Your task to perform on an android device: Open calendar and show me the fourth week of next month Image 0: 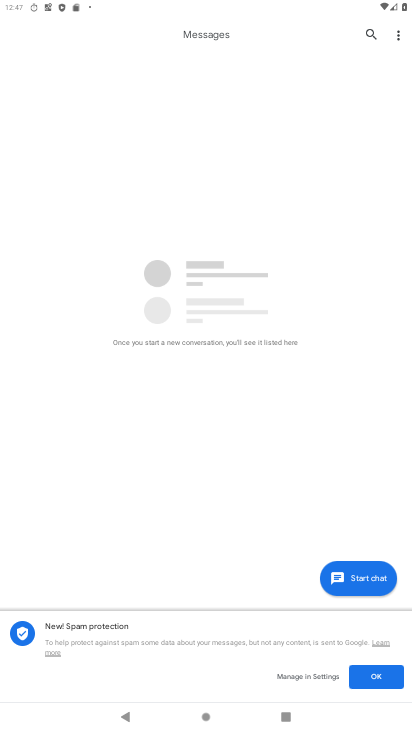
Step 0: press home button
Your task to perform on an android device: Open calendar and show me the fourth week of next month Image 1: 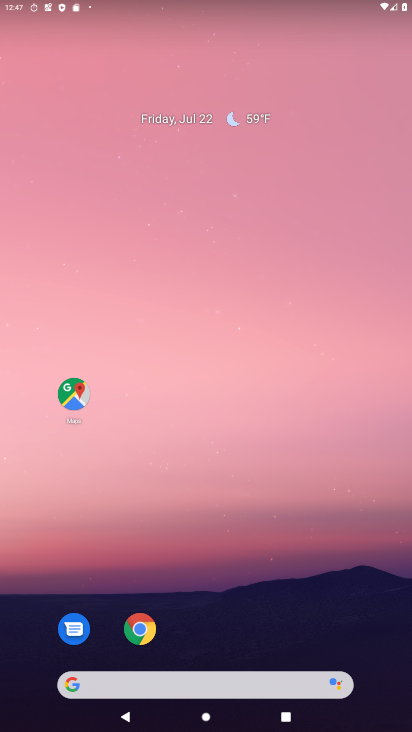
Step 1: drag from (198, 692) to (294, 95)
Your task to perform on an android device: Open calendar and show me the fourth week of next month Image 2: 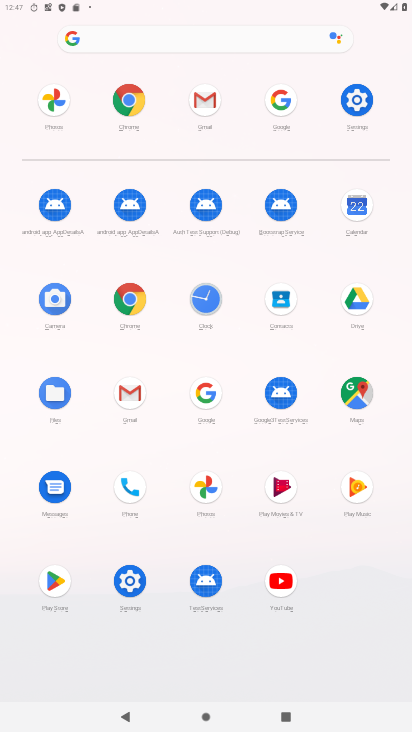
Step 2: click (355, 205)
Your task to perform on an android device: Open calendar and show me the fourth week of next month Image 3: 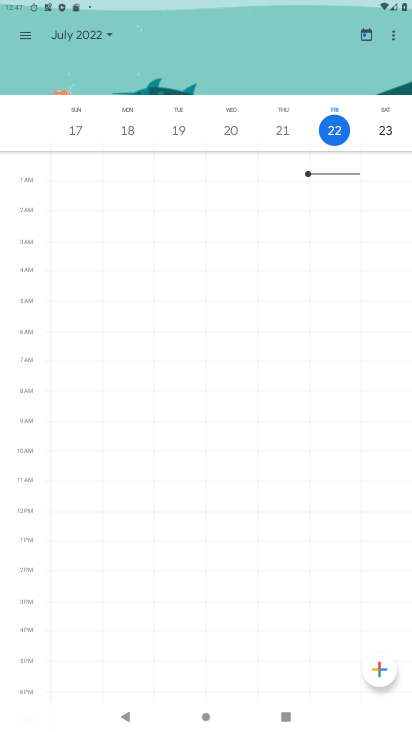
Step 3: click (111, 32)
Your task to perform on an android device: Open calendar and show me the fourth week of next month Image 4: 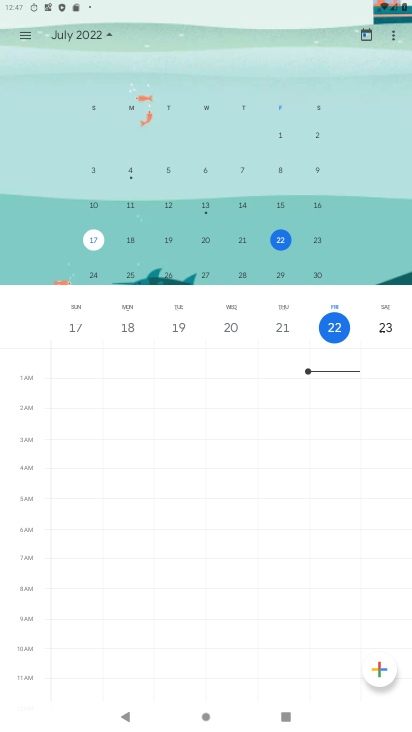
Step 4: drag from (330, 206) to (0, 249)
Your task to perform on an android device: Open calendar and show me the fourth week of next month Image 5: 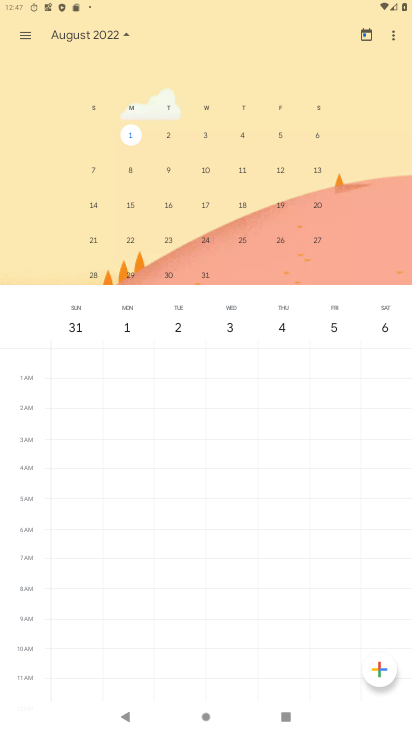
Step 5: click (210, 238)
Your task to perform on an android device: Open calendar and show me the fourth week of next month Image 6: 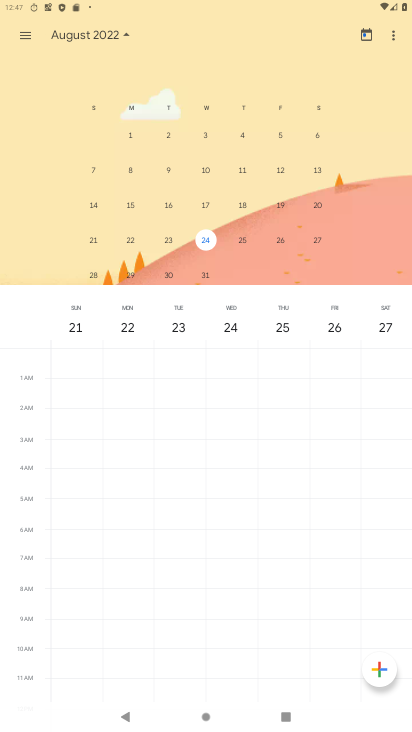
Step 6: task complete